Your task to perform on an android device: Go to sound settings Image 0: 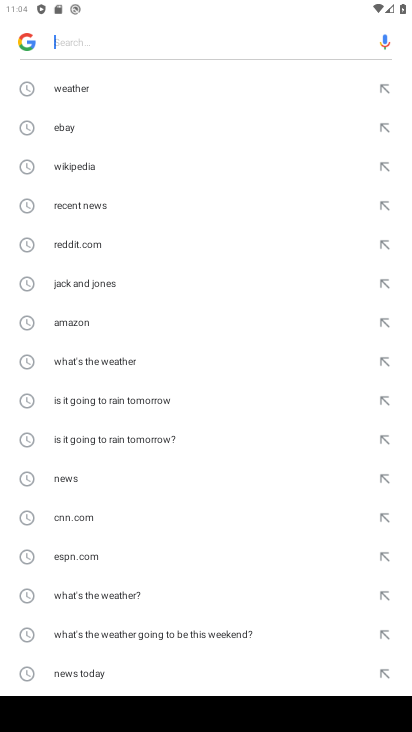
Step 0: press home button
Your task to perform on an android device: Go to sound settings Image 1: 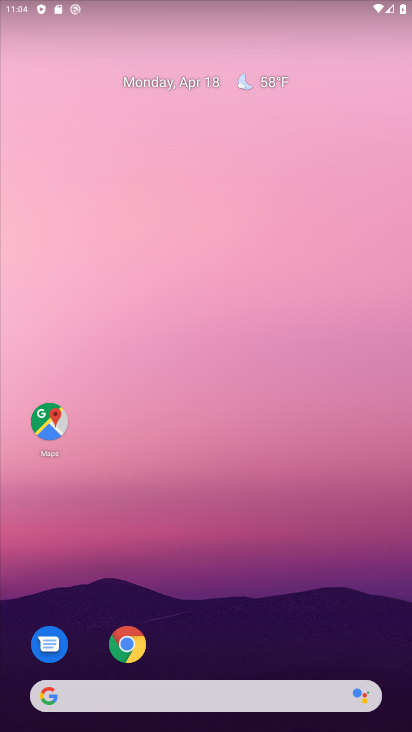
Step 1: drag from (176, 657) to (182, 184)
Your task to perform on an android device: Go to sound settings Image 2: 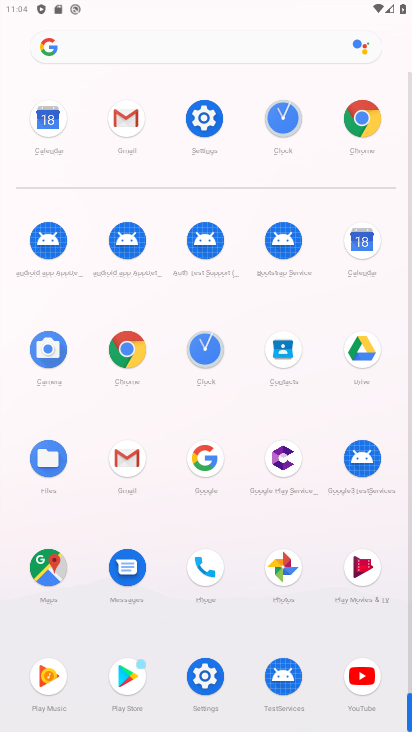
Step 2: click (193, 133)
Your task to perform on an android device: Go to sound settings Image 3: 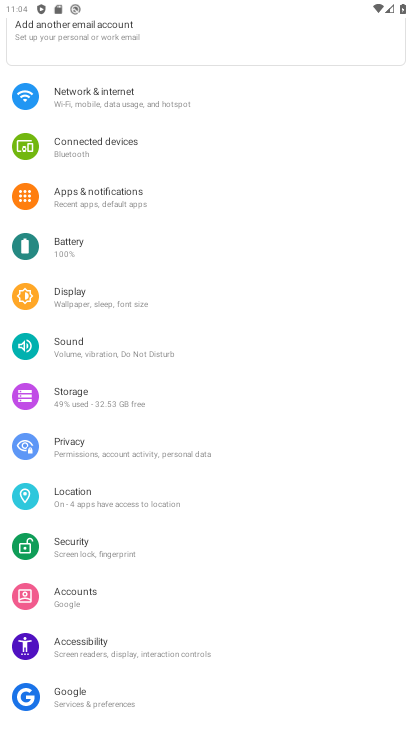
Step 3: click (128, 352)
Your task to perform on an android device: Go to sound settings Image 4: 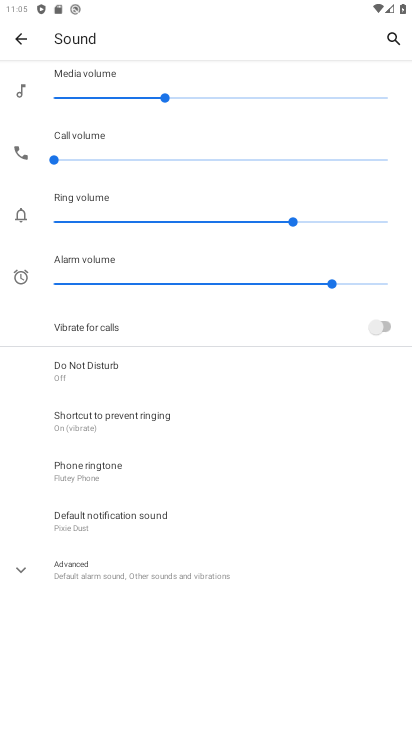
Step 4: task complete